Your task to perform on an android device: Search for Italian restaurants on Maps Image 0: 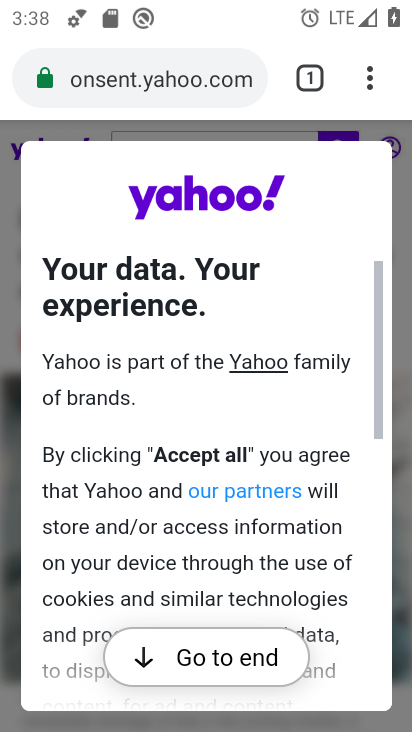
Step 0: press home button
Your task to perform on an android device: Search for Italian restaurants on Maps Image 1: 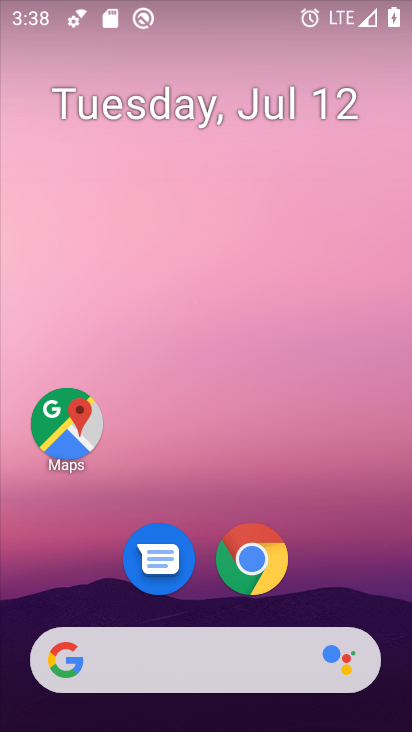
Step 1: drag from (350, 550) to (344, 152)
Your task to perform on an android device: Search for Italian restaurants on Maps Image 2: 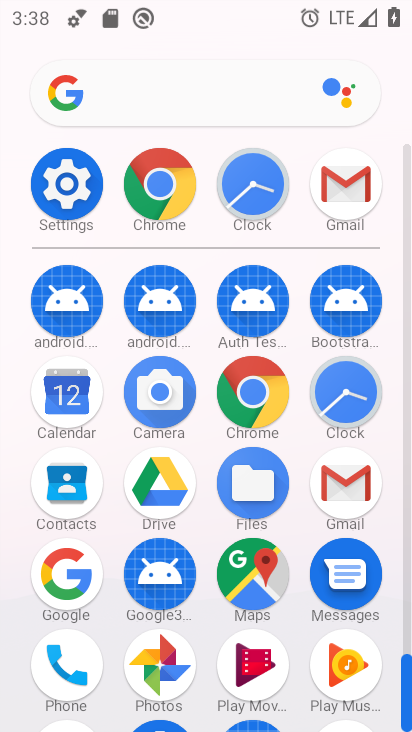
Step 2: click (260, 582)
Your task to perform on an android device: Search for Italian restaurants on Maps Image 3: 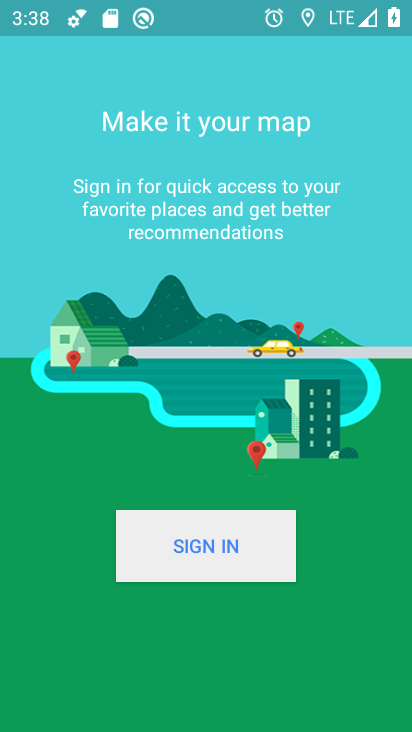
Step 3: task complete